Your task to perform on an android device: What's the weather? Image 0: 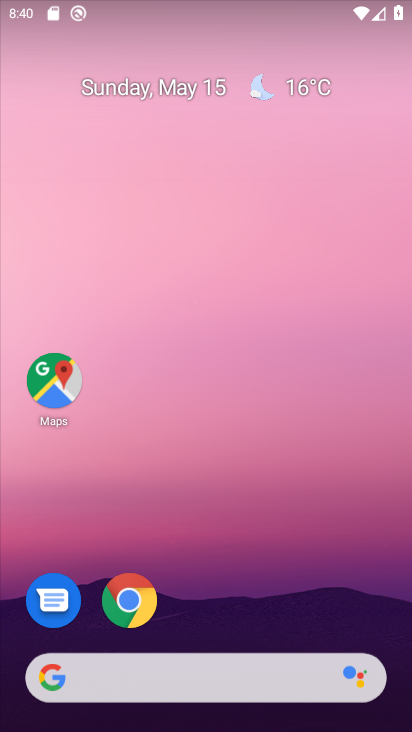
Step 0: click (304, 87)
Your task to perform on an android device: What's the weather? Image 1: 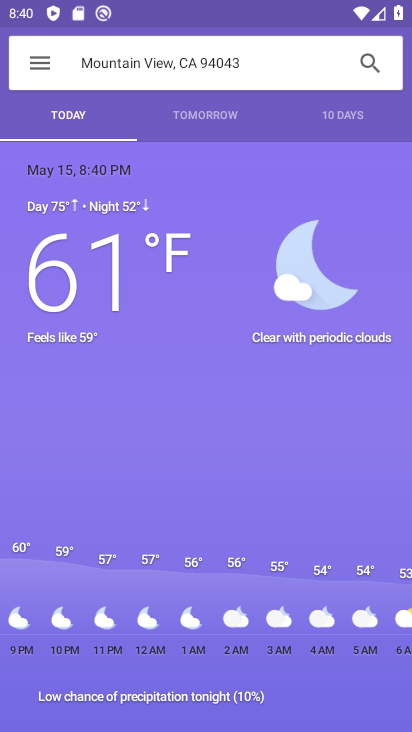
Step 1: task complete